Your task to perform on an android device: Show me popular videos on Youtube Image 0: 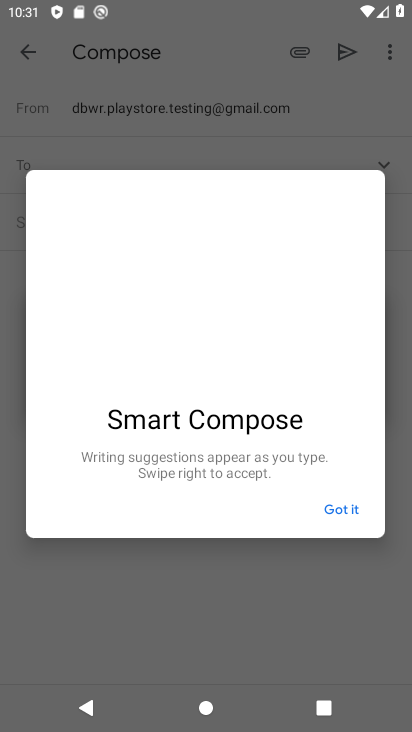
Step 0: press home button
Your task to perform on an android device: Show me popular videos on Youtube Image 1: 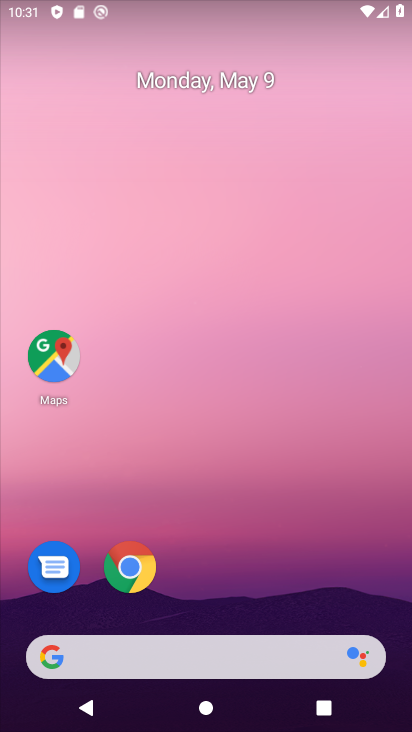
Step 1: drag from (332, 598) to (281, 25)
Your task to perform on an android device: Show me popular videos on Youtube Image 2: 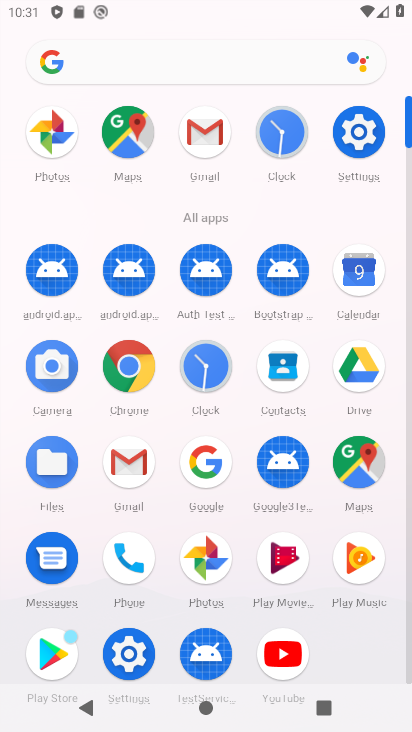
Step 2: click (300, 656)
Your task to perform on an android device: Show me popular videos on Youtube Image 3: 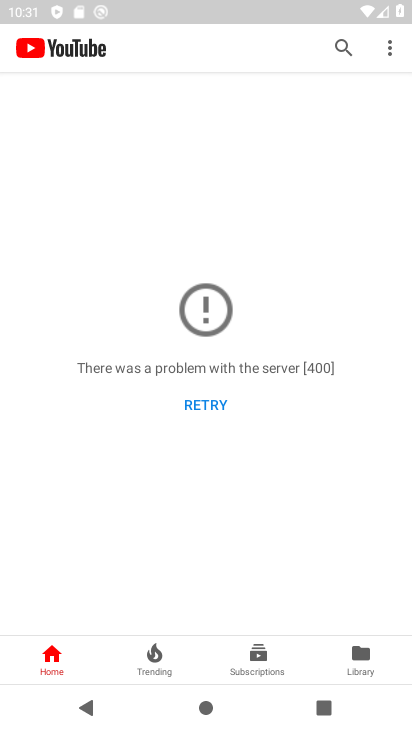
Step 3: click (207, 402)
Your task to perform on an android device: Show me popular videos on Youtube Image 4: 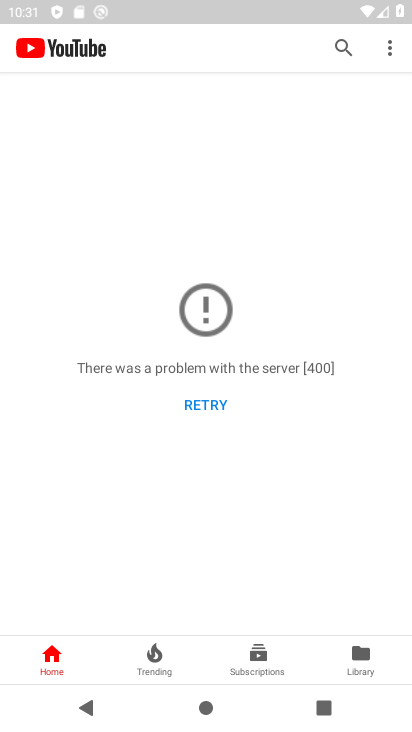
Step 4: click (207, 402)
Your task to perform on an android device: Show me popular videos on Youtube Image 5: 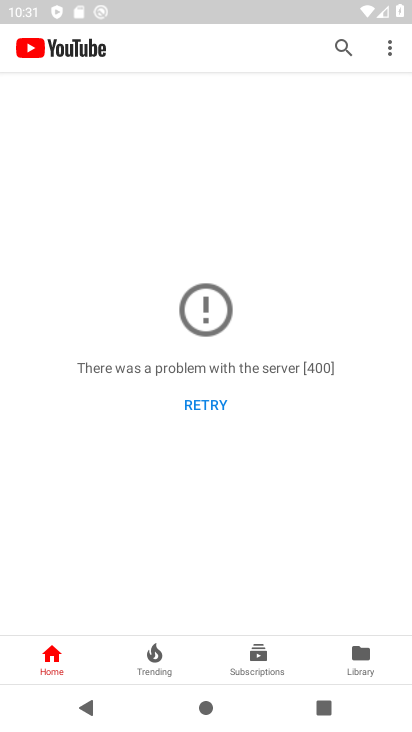
Step 5: click (353, 657)
Your task to perform on an android device: Show me popular videos on Youtube Image 6: 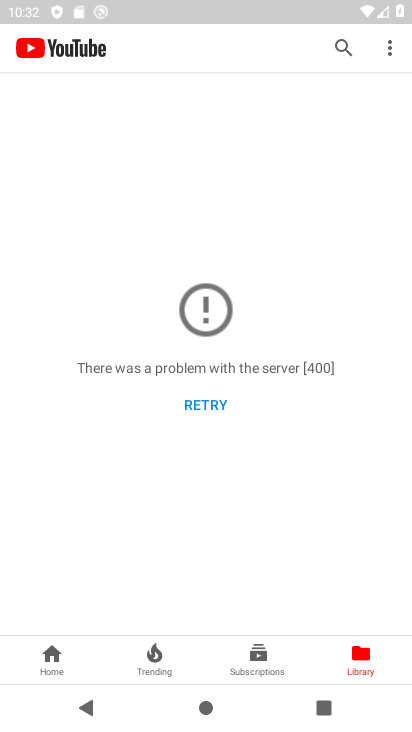
Step 6: task complete